Your task to perform on an android device: see tabs open on other devices in the chrome app Image 0: 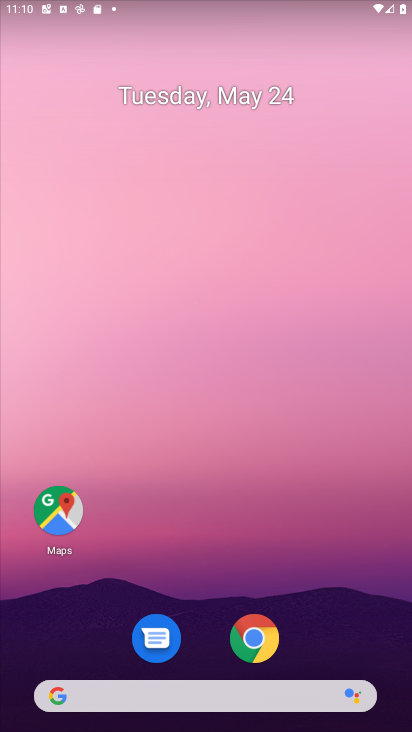
Step 0: click (253, 623)
Your task to perform on an android device: see tabs open on other devices in the chrome app Image 1: 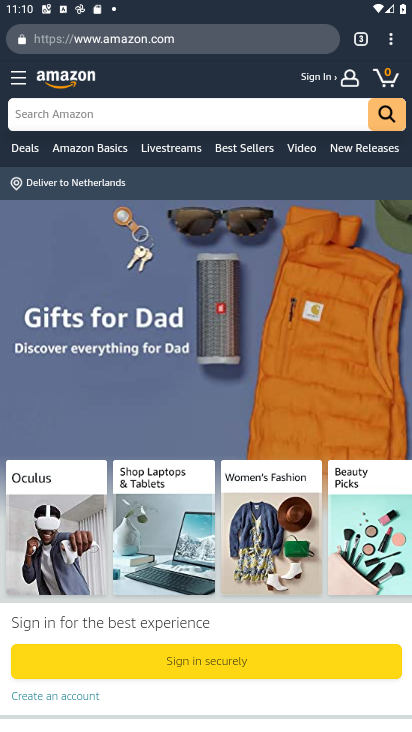
Step 1: click (387, 37)
Your task to perform on an android device: see tabs open on other devices in the chrome app Image 2: 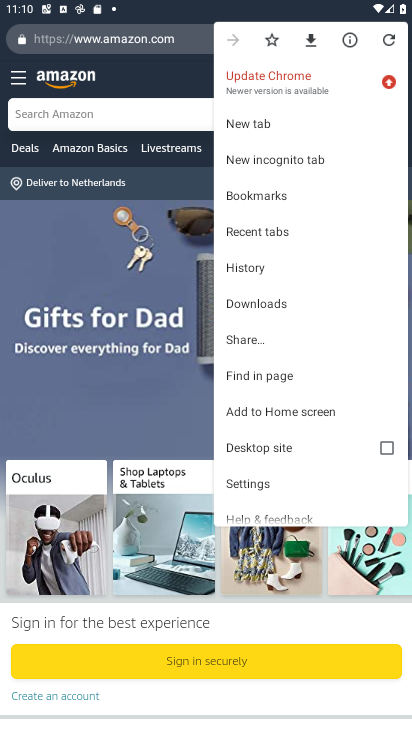
Step 2: click (274, 228)
Your task to perform on an android device: see tabs open on other devices in the chrome app Image 3: 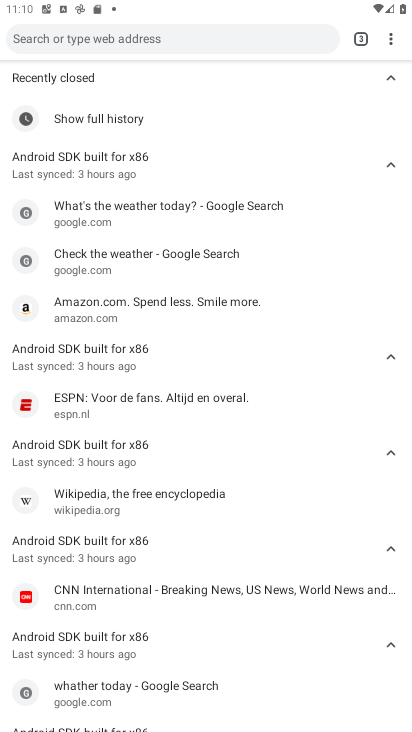
Step 3: task complete